Your task to perform on an android device: change notification settings in the gmail app Image 0: 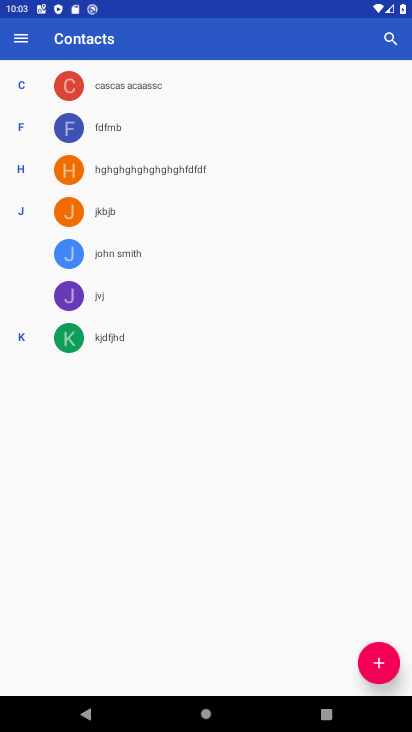
Step 0: press home button
Your task to perform on an android device: change notification settings in the gmail app Image 1: 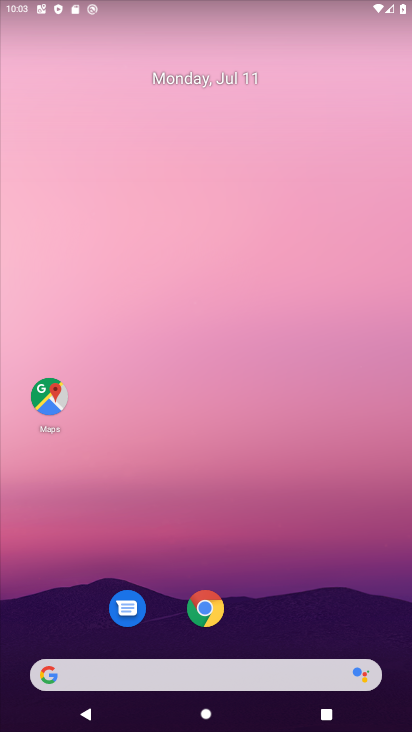
Step 1: drag from (176, 450) to (371, 4)
Your task to perform on an android device: change notification settings in the gmail app Image 2: 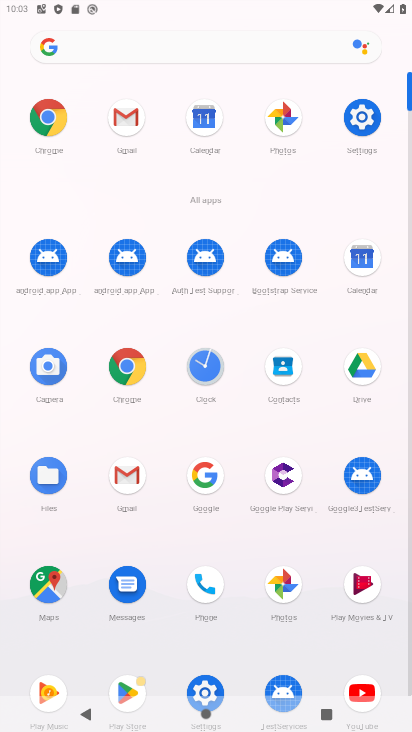
Step 2: click (119, 483)
Your task to perform on an android device: change notification settings in the gmail app Image 3: 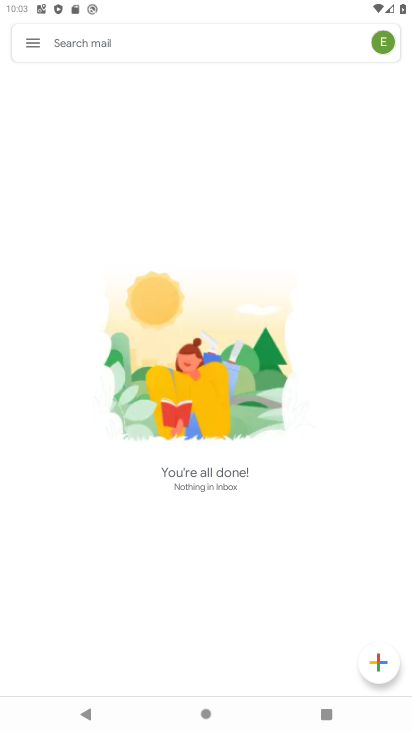
Step 3: click (29, 32)
Your task to perform on an android device: change notification settings in the gmail app Image 4: 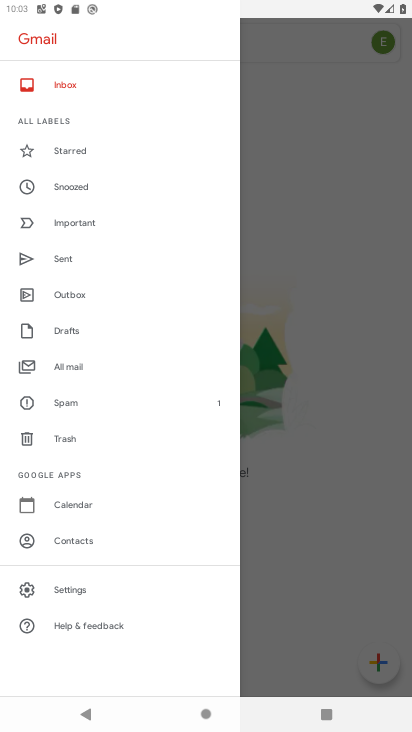
Step 4: click (75, 588)
Your task to perform on an android device: change notification settings in the gmail app Image 5: 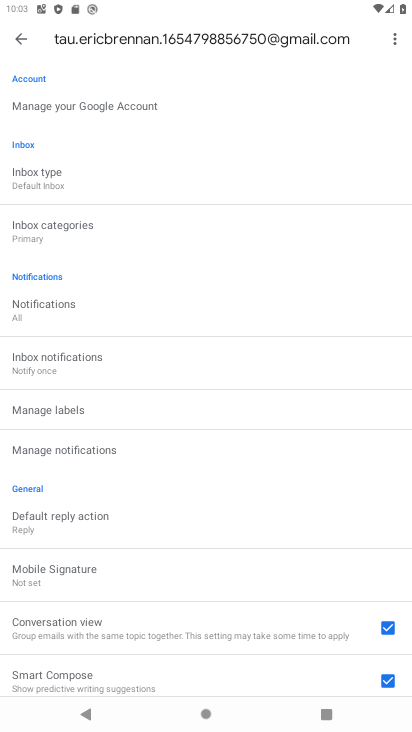
Step 5: click (58, 306)
Your task to perform on an android device: change notification settings in the gmail app Image 6: 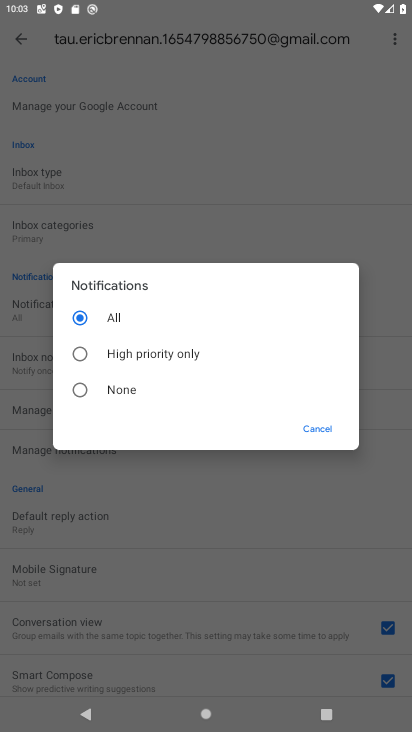
Step 6: click (315, 423)
Your task to perform on an android device: change notification settings in the gmail app Image 7: 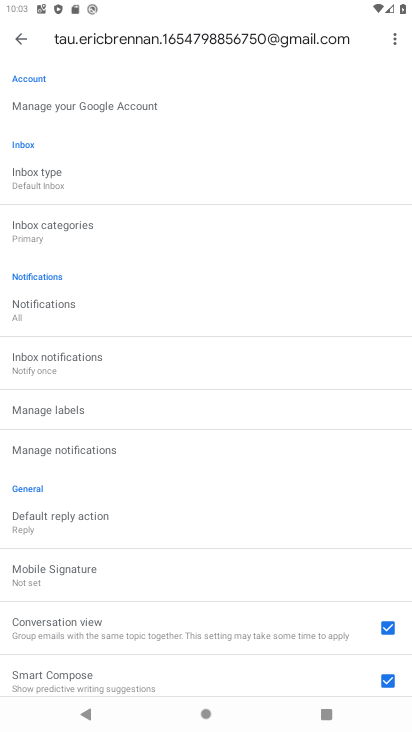
Step 7: task complete